Your task to perform on an android device: turn on notifications settings in the gmail app Image 0: 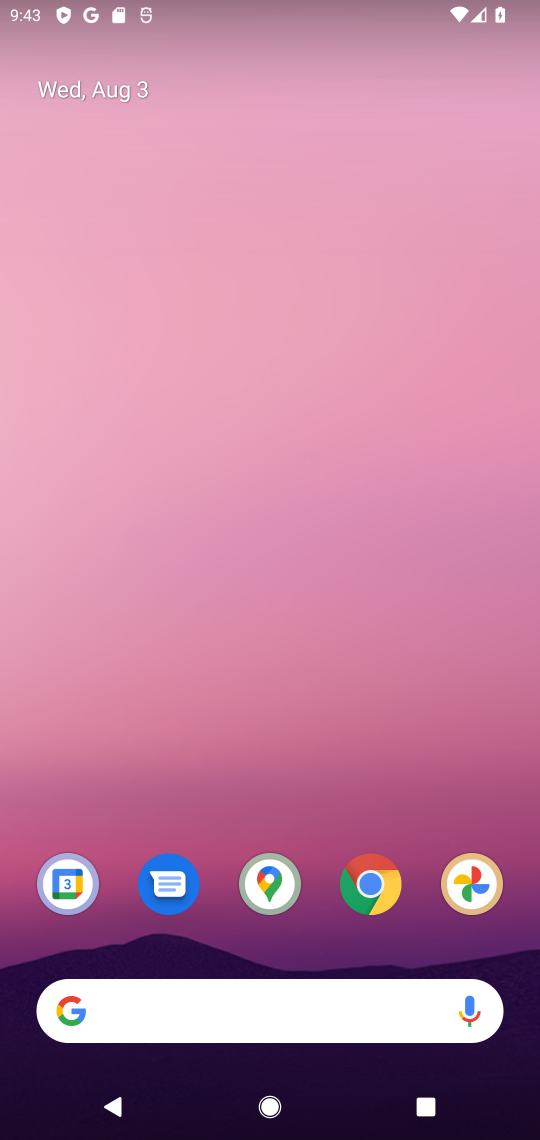
Step 0: press home button
Your task to perform on an android device: turn on notifications settings in the gmail app Image 1: 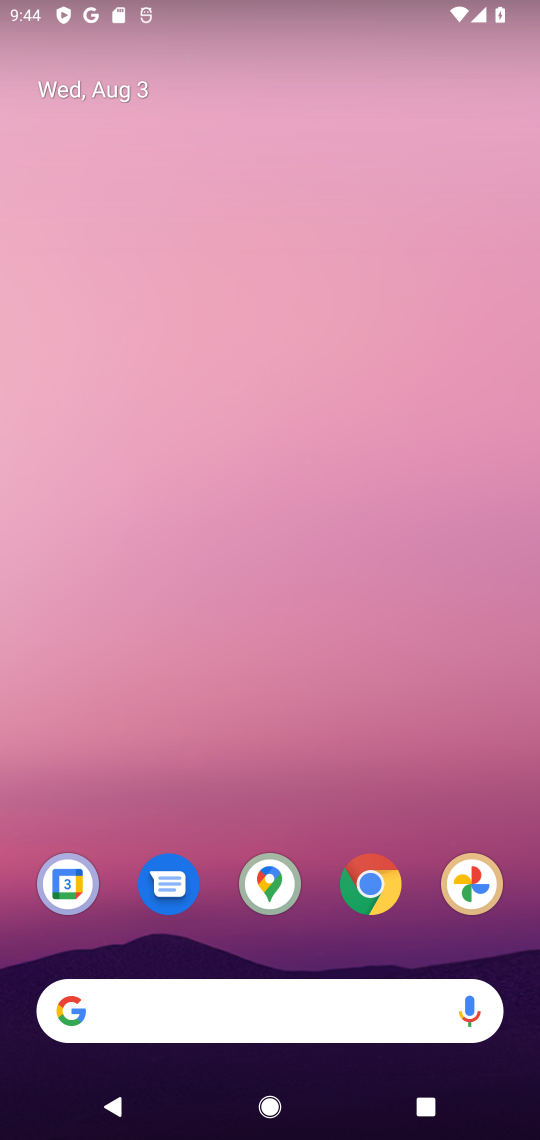
Step 1: drag from (381, 920) to (372, 279)
Your task to perform on an android device: turn on notifications settings in the gmail app Image 2: 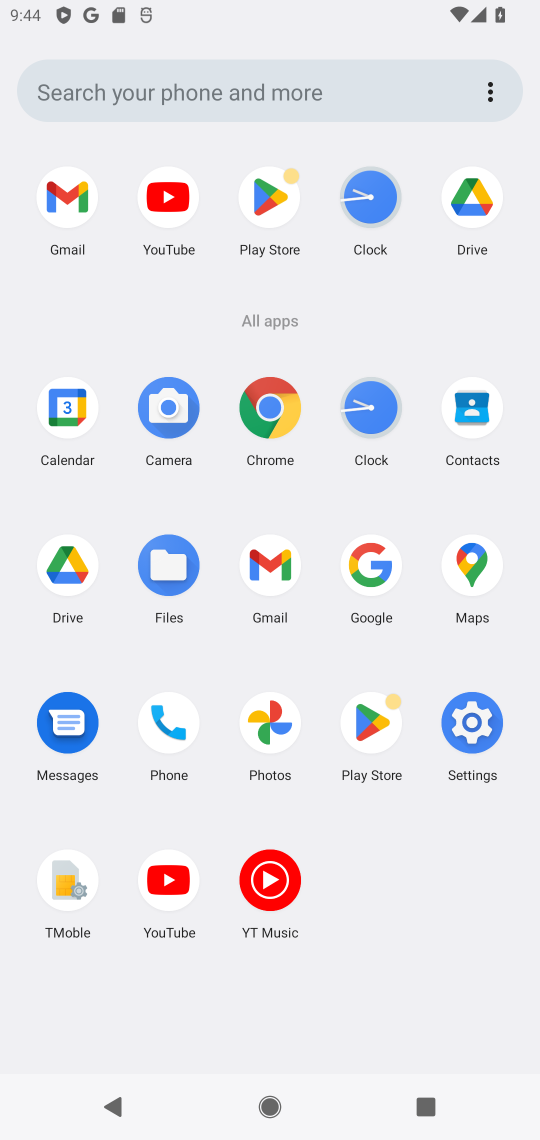
Step 2: click (266, 557)
Your task to perform on an android device: turn on notifications settings in the gmail app Image 3: 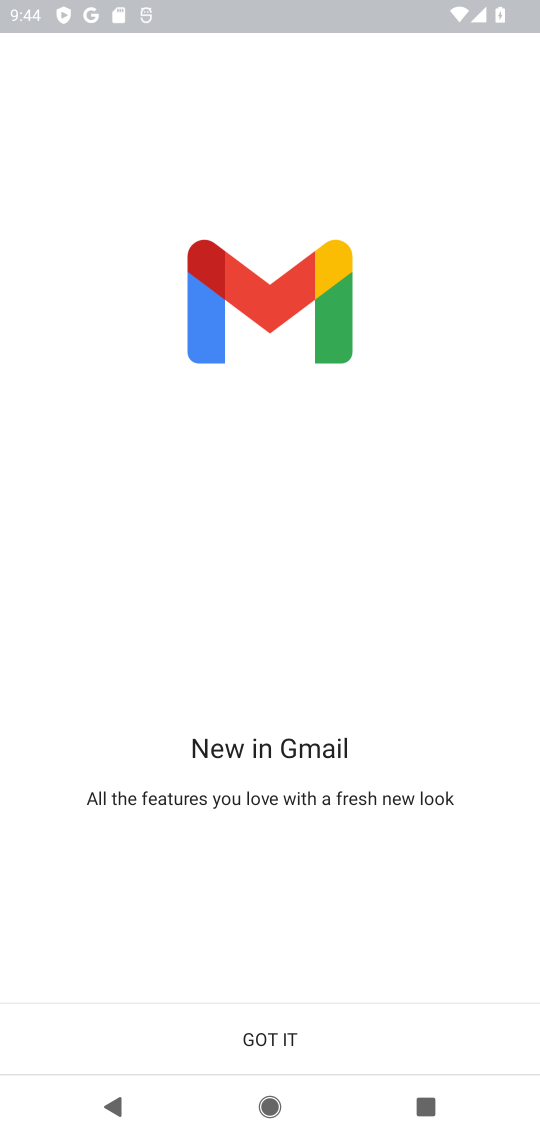
Step 3: click (299, 1020)
Your task to perform on an android device: turn on notifications settings in the gmail app Image 4: 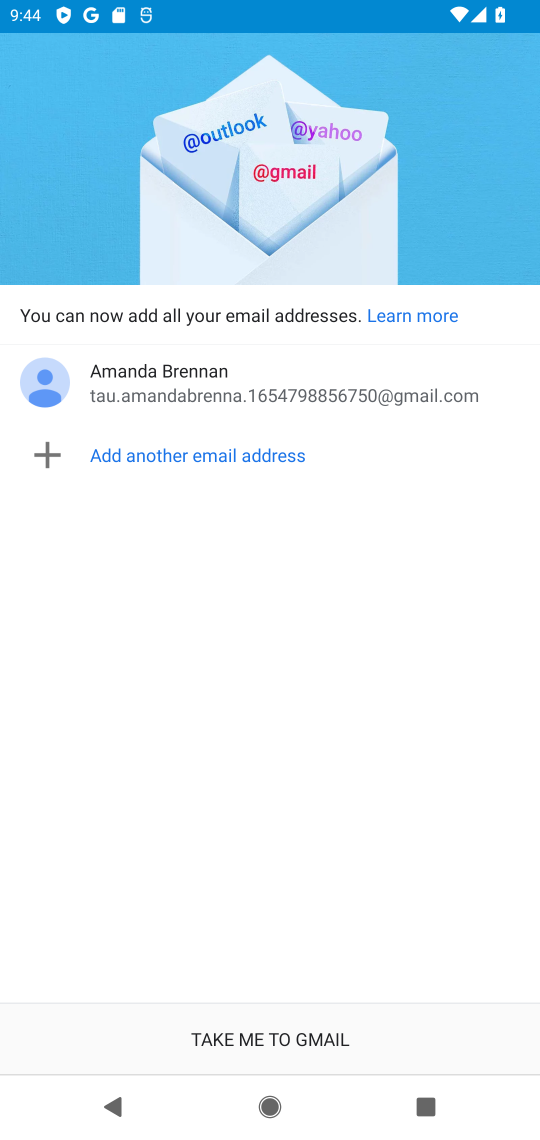
Step 4: click (328, 1037)
Your task to perform on an android device: turn on notifications settings in the gmail app Image 5: 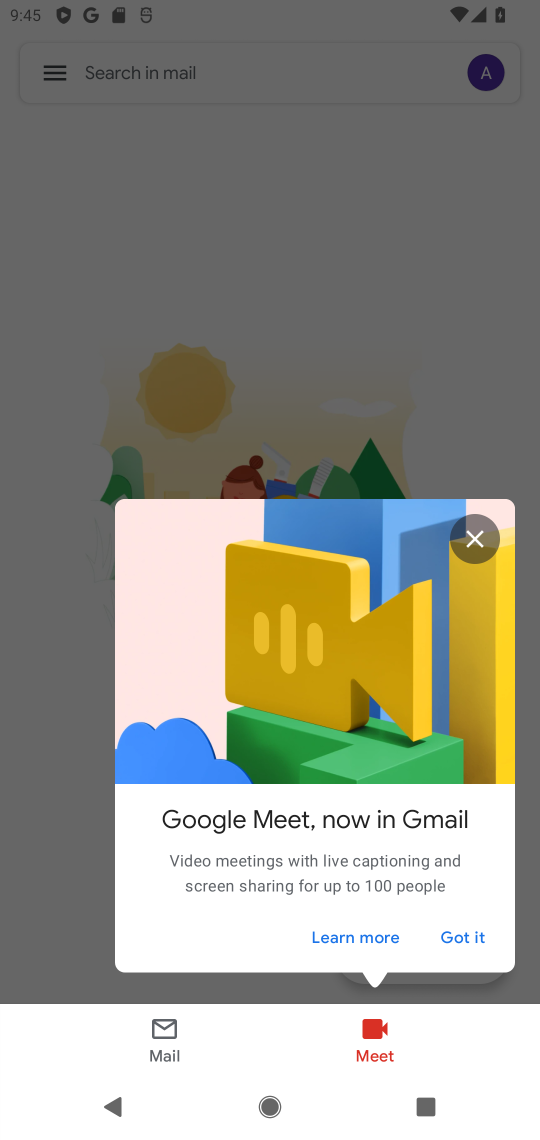
Step 5: click (482, 947)
Your task to perform on an android device: turn on notifications settings in the gmail app Image 6: 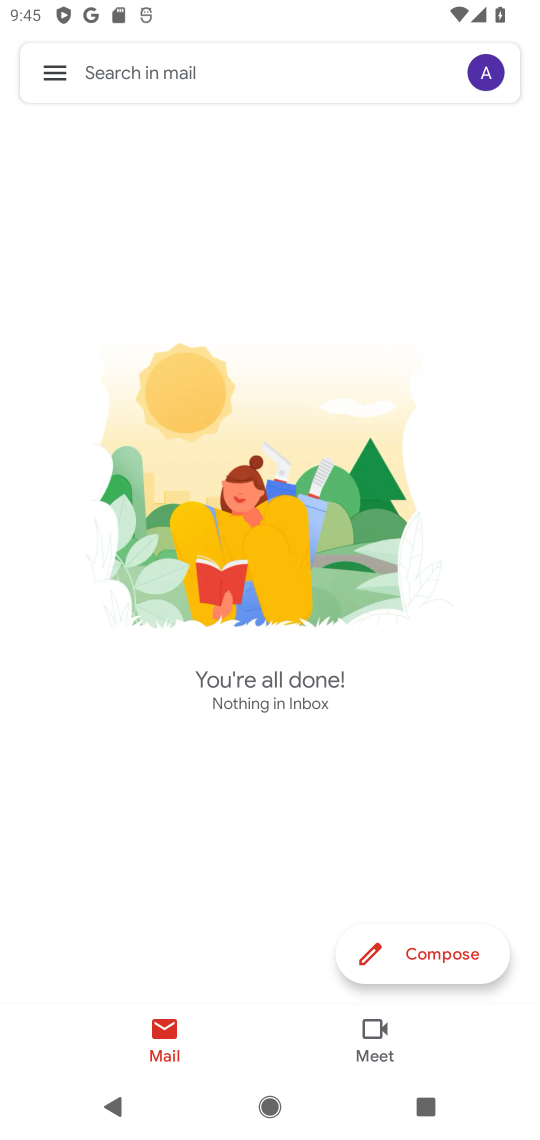
Step 6: click (41, 65)
Your task to perform on an android device: turn on notifications settings in the gmail app Image 7: 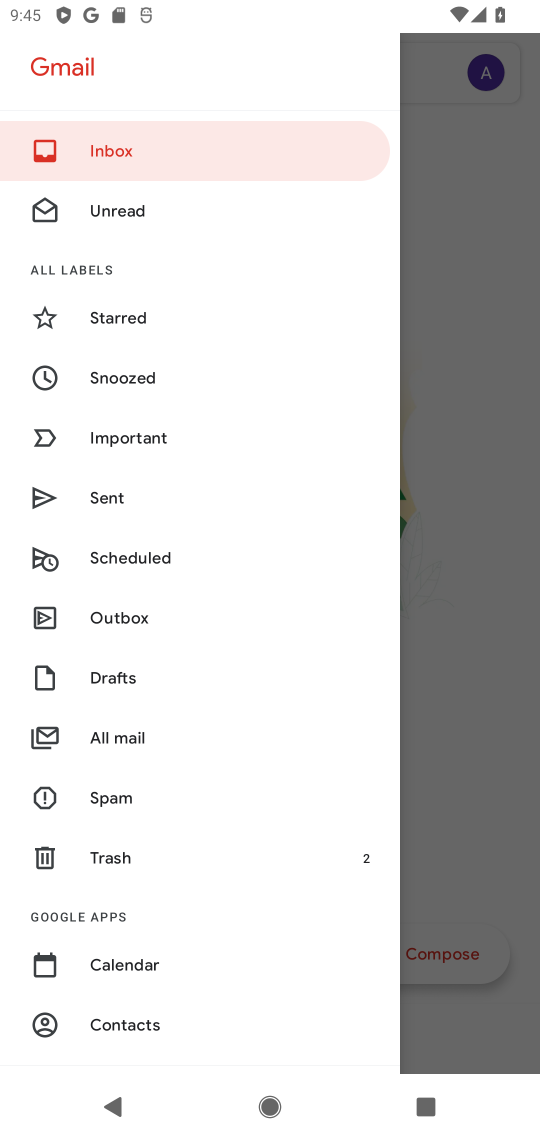
Step 7: drag from (299, 834) to (333, 346)
Your task to perform on an android device: turn on notifications settings in the gmail app Image 8: 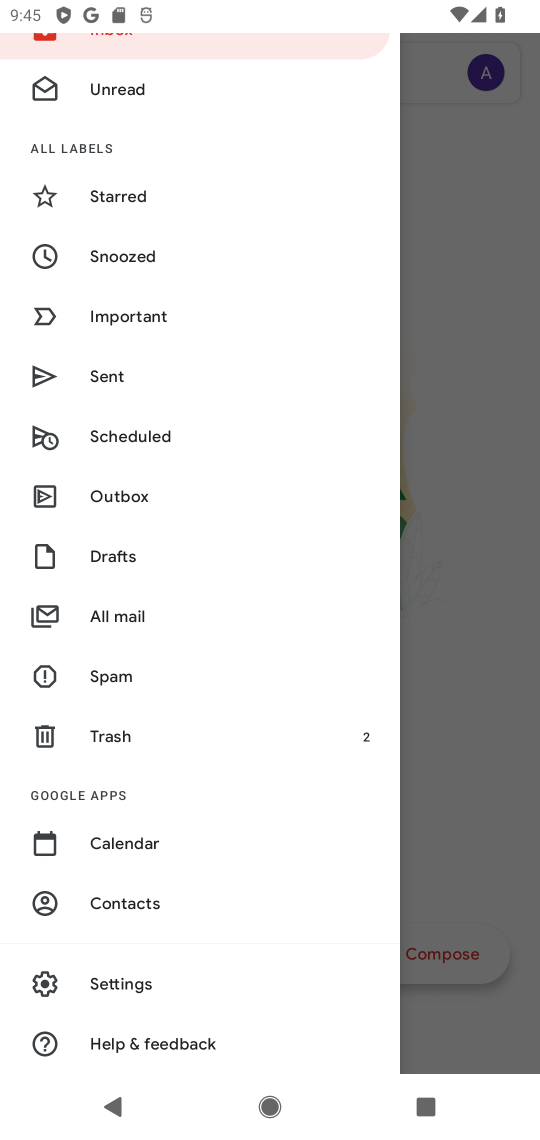
Step 8: click (121, 971)
Your task to perform on an android device: turn on notifications settings in the gmail app Image 9: 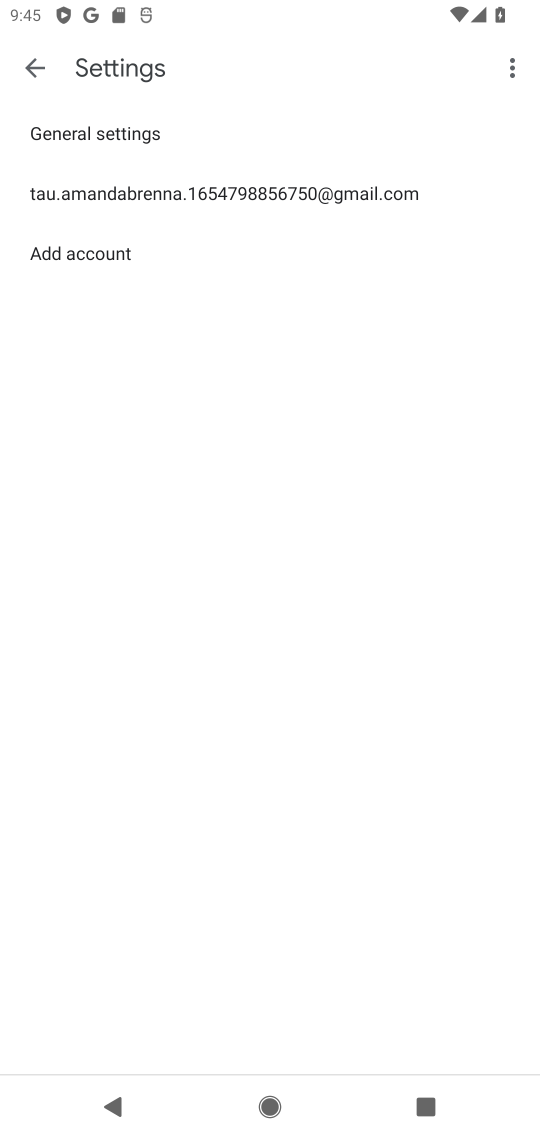
Step 9: click (132, 193)
Your task to perform on an android device: turn on notifications settings in the gmail app Image 10: 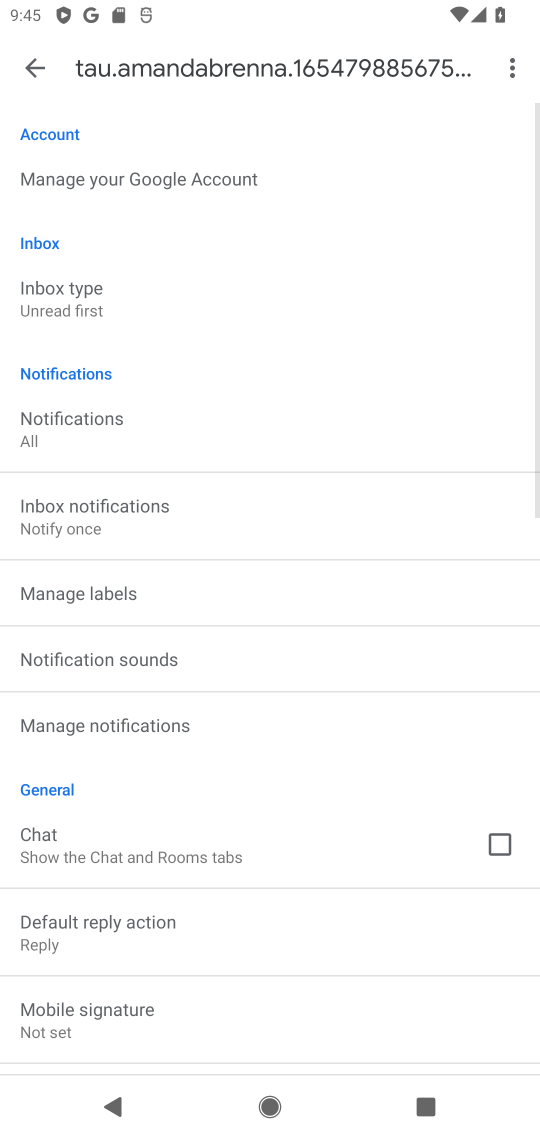
Step 10: click (102, 727)
Your task to perform on an android device: turn on notifications settings in the gmail app Image 11: 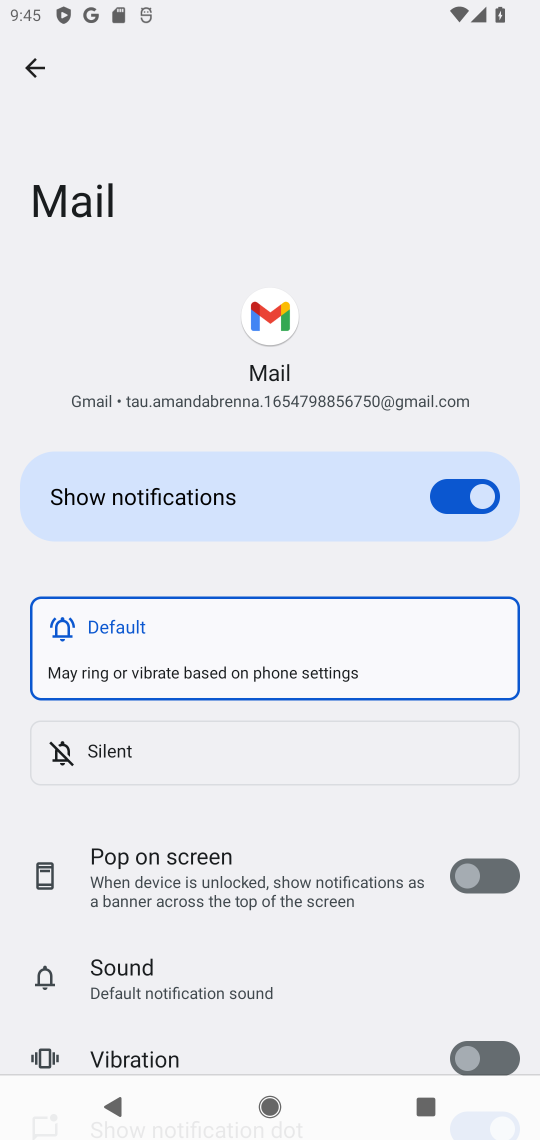
Step 11: task complete